Your task to perform on an android device: open a bookmark in the chrome app Image 0: 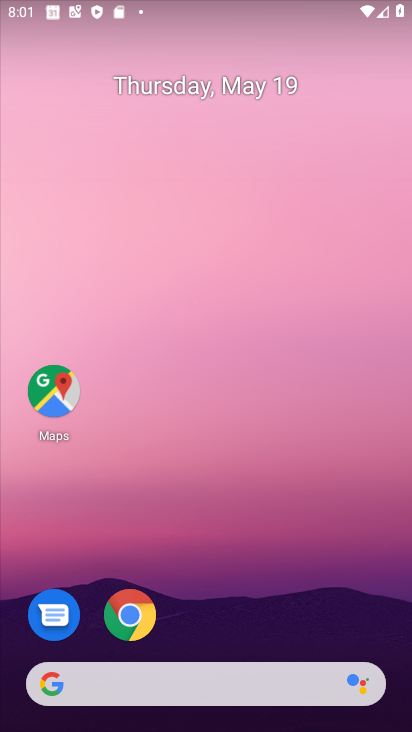
Step 0: click (163, 615)
Your task to perform on an android device: open a bookmark in the chrome app Image 1: 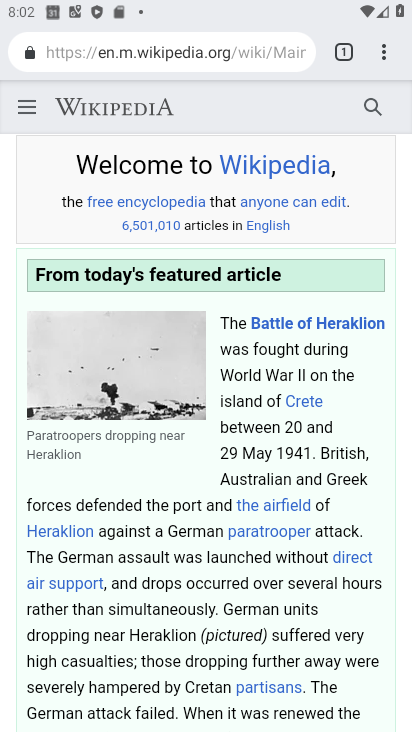
Step 1: click (388, 54)
Your task to perform on an android device: open a bookmark in the chrome app Image 2: 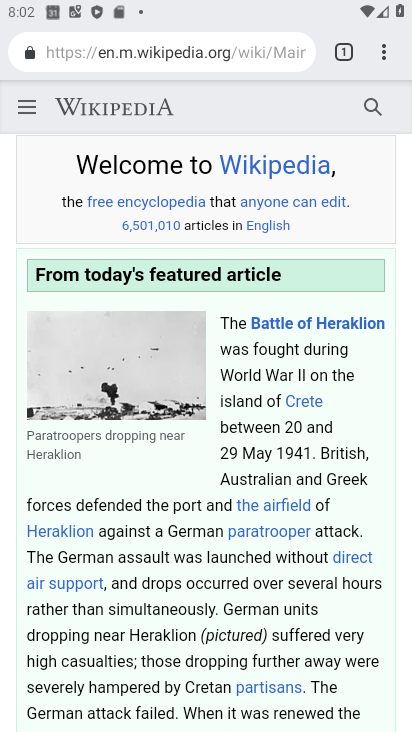
Step 2: click (383, 58)
Your task to perform on an android device: open a bookmark in the chrome app Image 3: 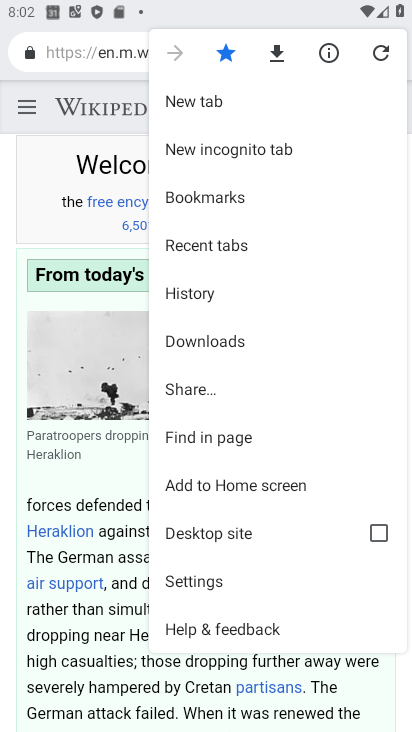
Step 3: click (245, 206)
Your task to perform on an android device: open a bookmark in the chrome app Image 4: 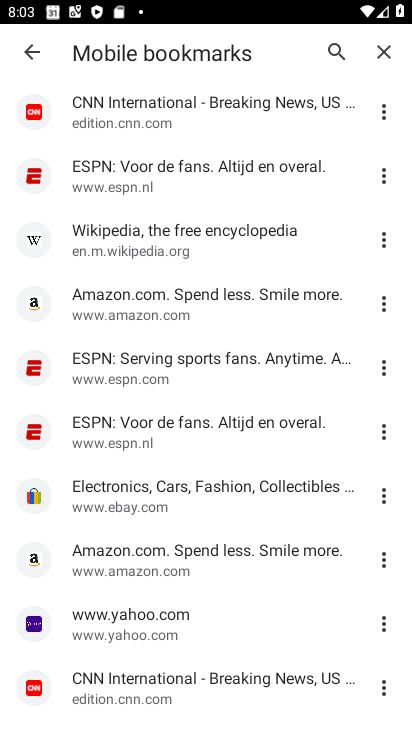
Step 4: click (146, 486)
Your task to perform on an android device: open a bookmark in the chrome app Image 5: 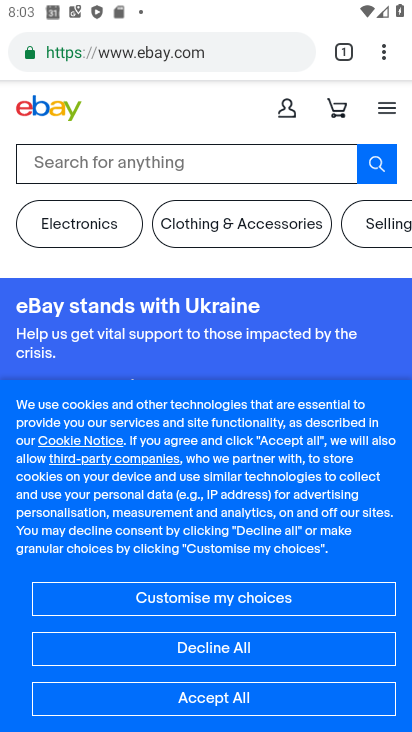
Step 5: task complete